Your task to perform on an android device: toggle javascript in the chrome app Image 0: 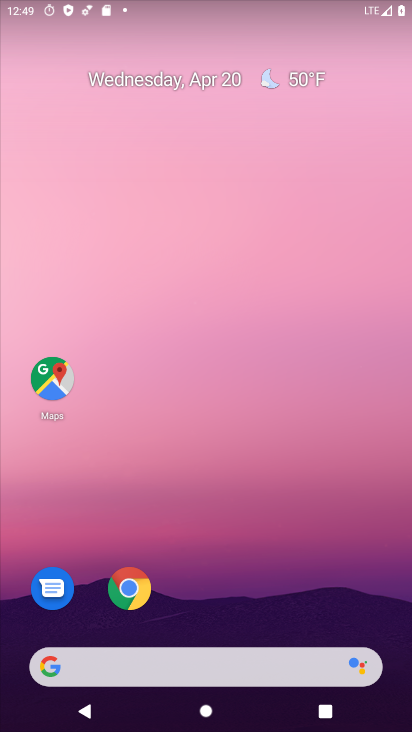
Step 0: click (127, 581)
Your task to perform on an android device: toggle javascript in the chrome app Image 1: 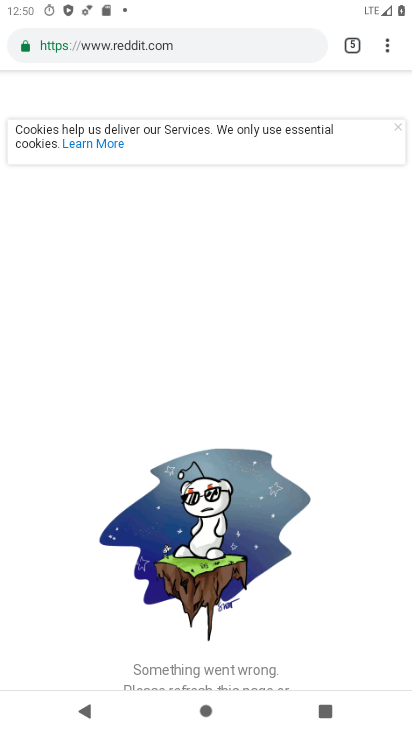
Step 1: drag from (382, 46) to (229, 552)
Your task to perform on an android device: toggle javascript in the chrome app Image 2: 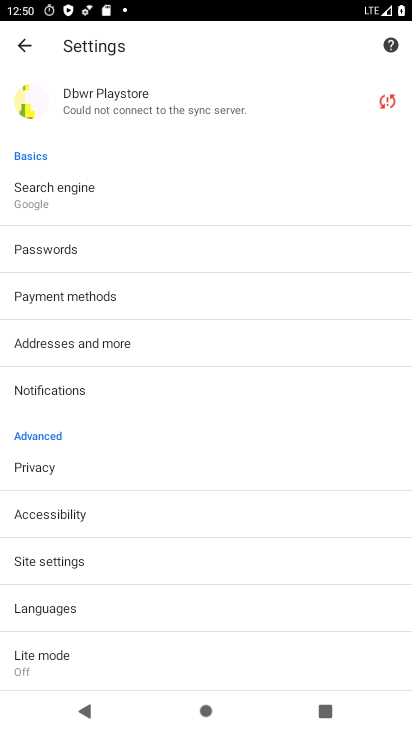
Step 2: click (47, 566)
Your task to perform on an android device: toggle javascript in the chrome app Image 3: 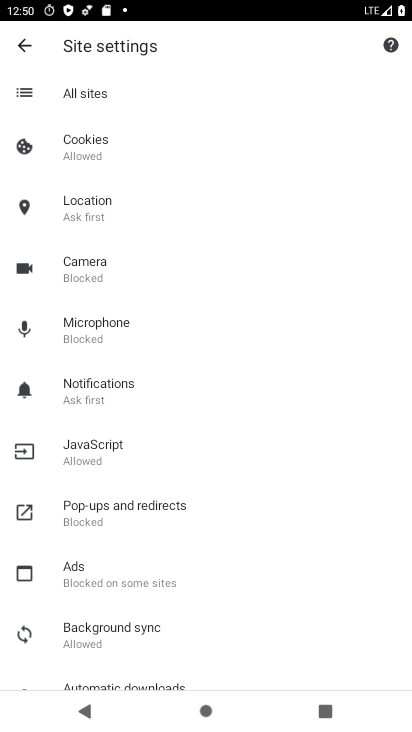
Step 3: click (90, 446)
Your task to perform on an android device: toggle javascript in the chrome app Image 4: 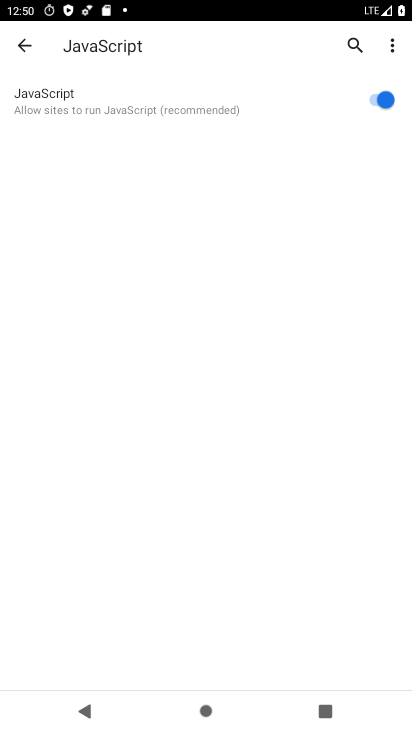
Step 4: click (372, 89)
Your task to perform on an android device: toggle javascript in the chrome app Image 5: 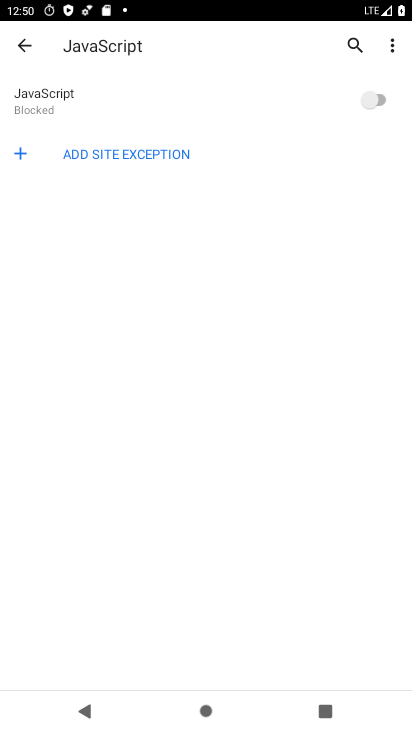
Step 5: task complete